Your task to perform on an android device: Open calendar and show me the third week of next month Image 0: 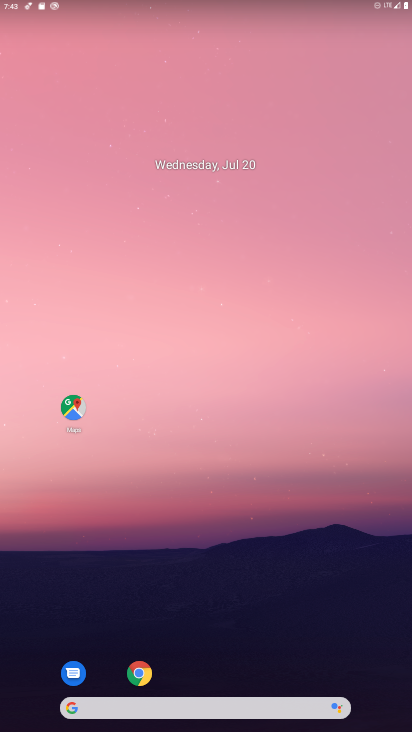
Step 0: drag from (302, 664) to (249, 72)
Your task to perform on an android device: Open calendar and show me the third week of next month Image 1: 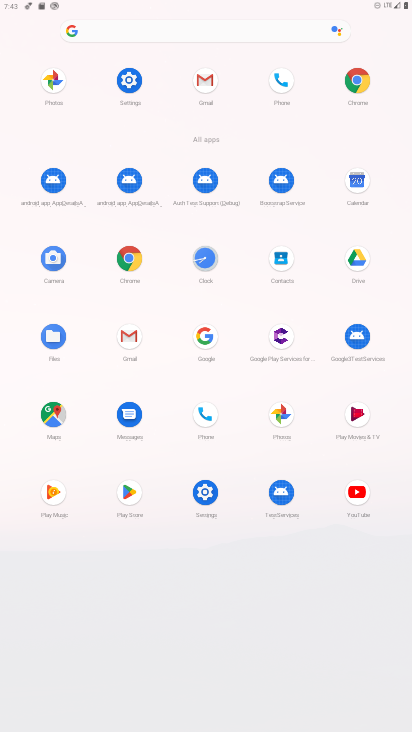
Step 1: click (351, 174)
Your task to perform on an android device: Open calendar and show me the third week of next month Image 2: 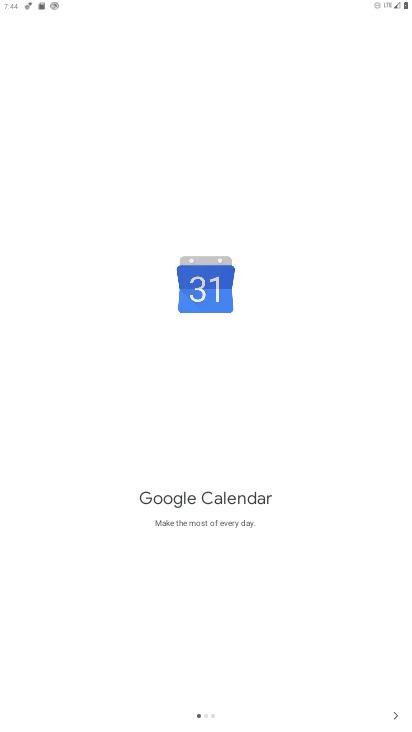
Step 2: click (400, 719)
Your task to perform on an android device: Open calendar and show me the third week of next month Image 3: 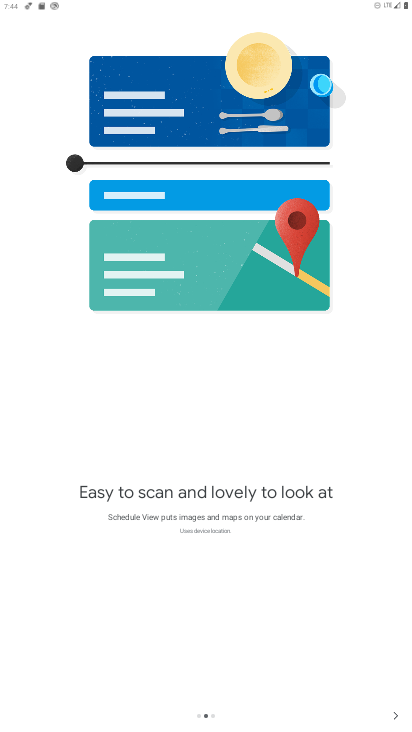
Step 3: click (395, 717)
Your task to perform on an android device: Open calendar and show me the third week of next month Image 4: 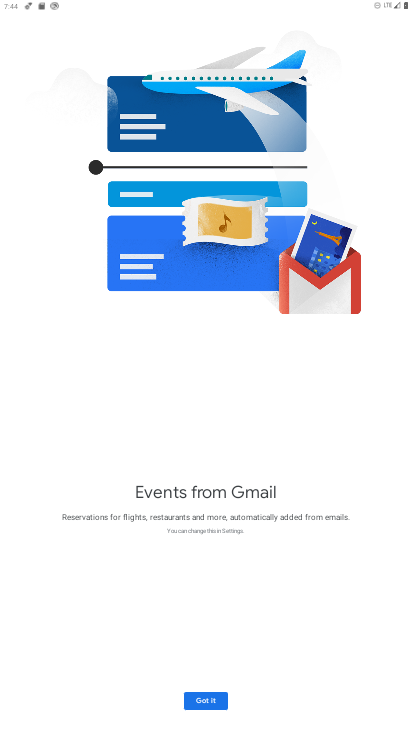
Step 4: click (218, 703)
Your task to perform on an android device: Open calendar and show me the third week of next month Image 5: 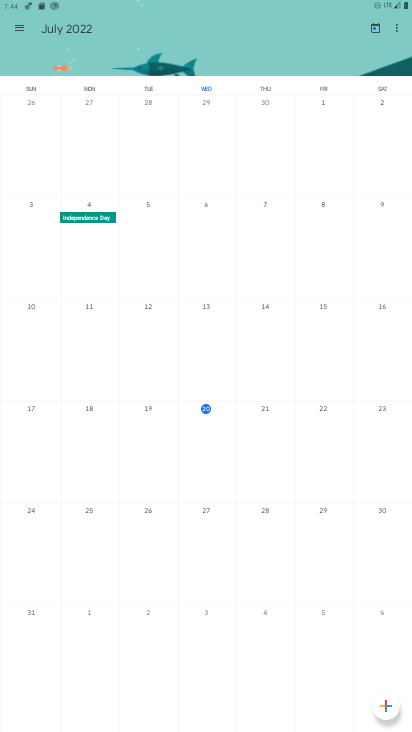
Step 5: drag from (368, 472) to (11, 288)
Your task to perform on an android device: Open calendar and show me the third week of next month Image 6: 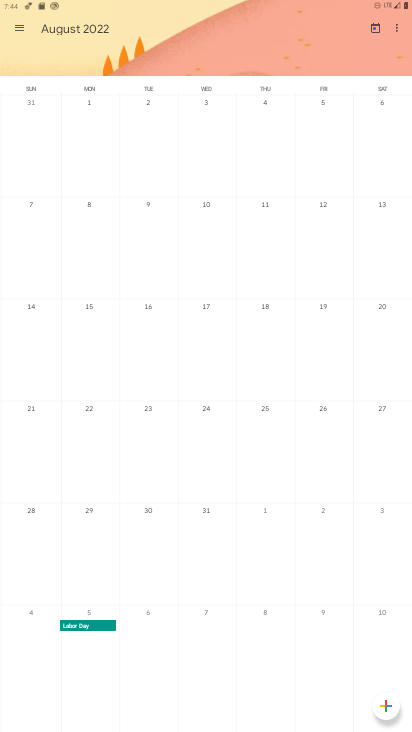
Step 6: click (29, 418)
Your task to perform on an android device: Open calendar and show me the third week of next month Image 7: 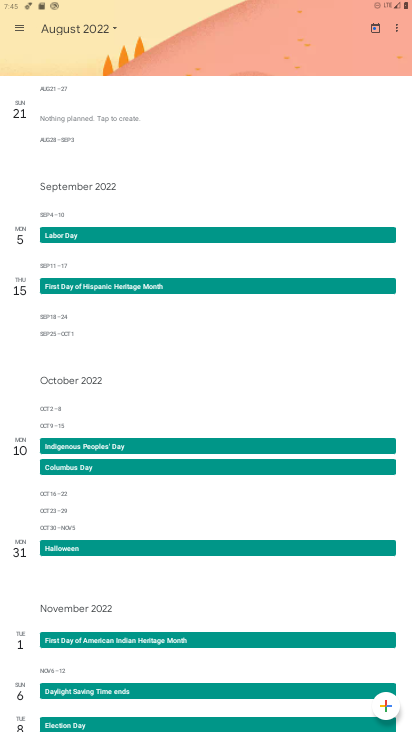
Step 7: task complete